Your task to perform on an android device: Open Google Chrome and click the shortcut for Amazon.com Image 0: 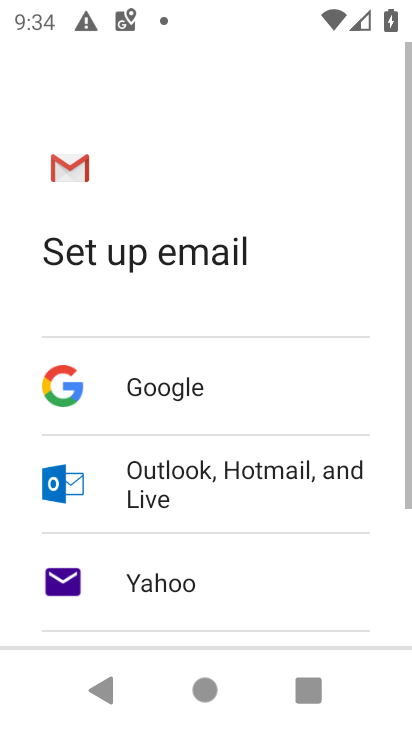
Step 0: press home button
Your task to perform on an android device: Open Google Chrome and click the shortcut for Amazon.com Image 1: 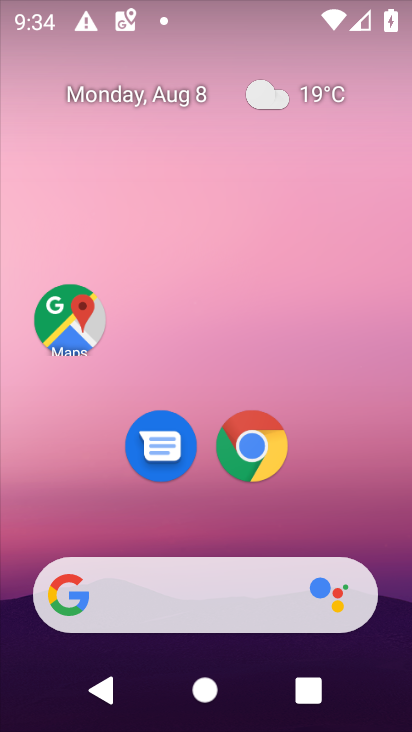
Step 1: click (252, 449)
Your task to perform on an android device: Open Google Chrome and click the shortcut for Amazon.com Image 2: 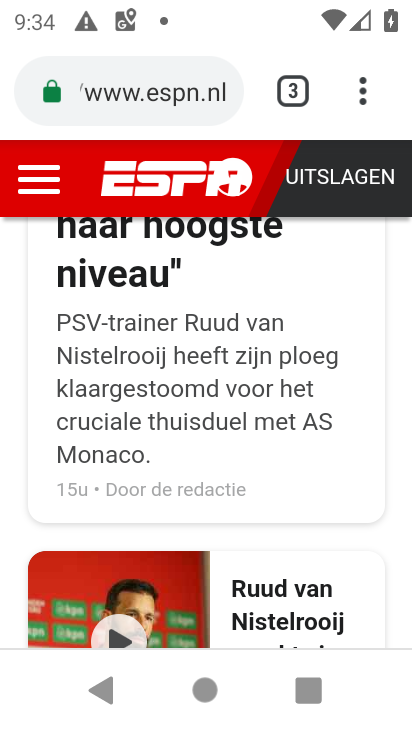
Step 2: click (354, 102)
Your task to perform on an android device: Open Google Chrome and click the shortcut for Amazon.com Image 3: 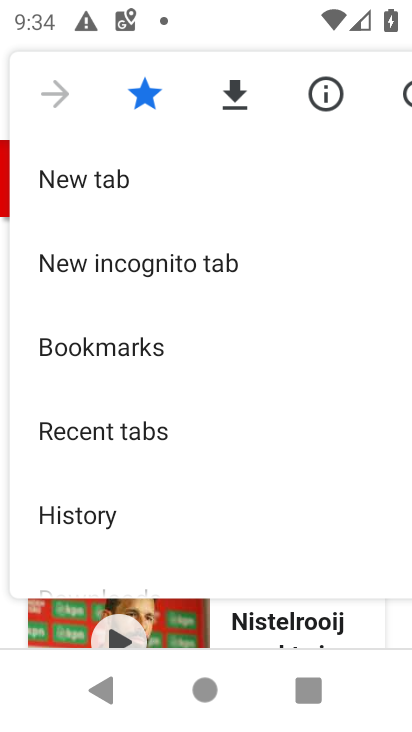
Step 3: click (39, 187)
Your task to perform on an android device: Open Google Chrome and click the shortcut for Amazon.com Image 4: 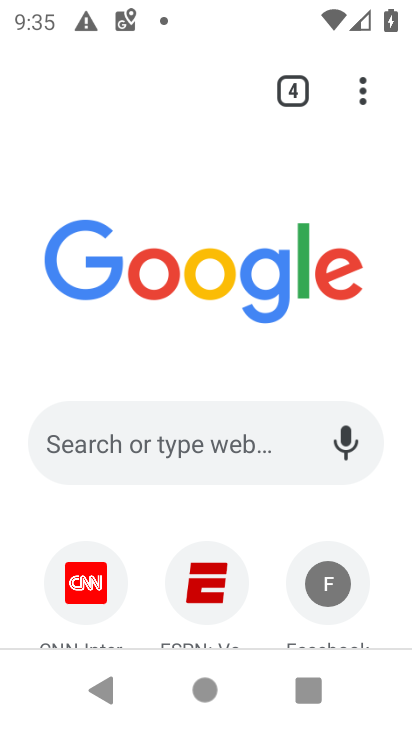
Step 4: drag from (266, 492) to (244, 145)
Your task to perform on an android device: Open Google Chrome and click the shortcut for Amazon.com Image 5: 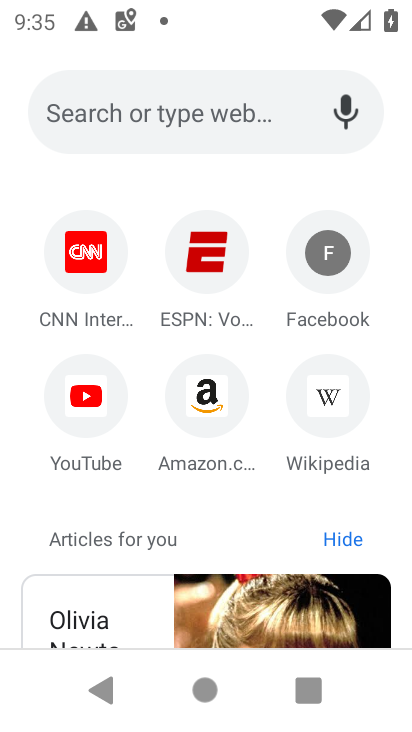
Step 5: click (208, 394)
Your task to perform on an android device: Open Google Chrome and click the shortcut for Amazon.com Image 6: 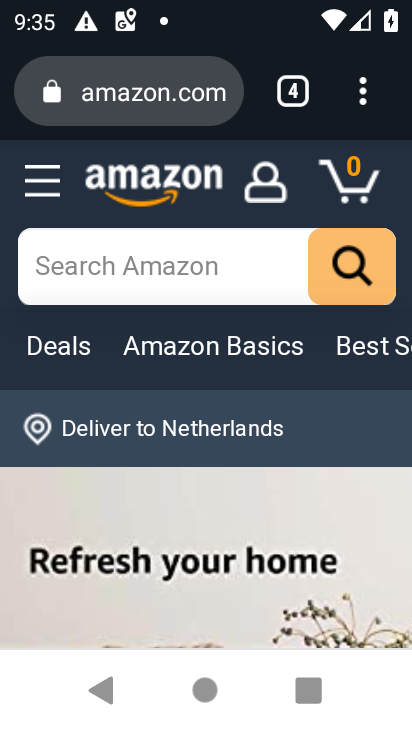
Step 6: task complete